Your task to perform on an android device: toggle location history Image 0: 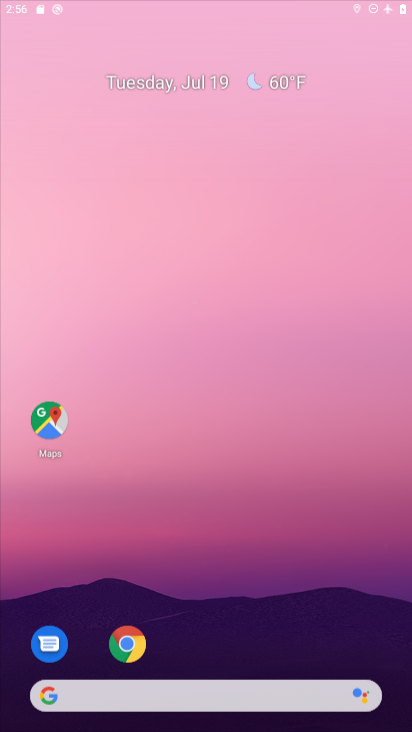
Step 0: drag from (198, 679) to (232, 109)
Your task to perform on an android device: toggle location history Image 1: 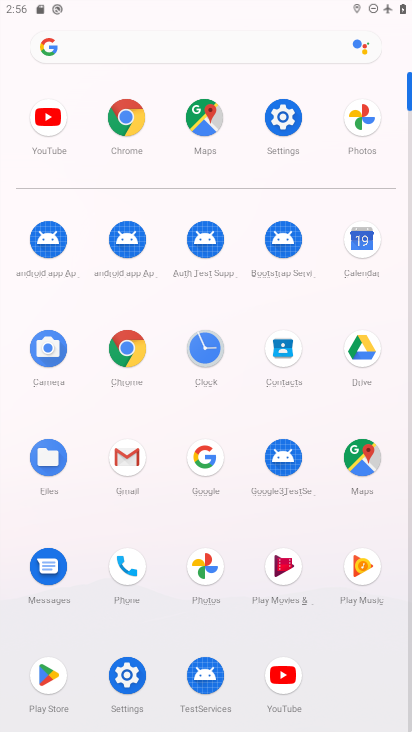
Step 1: click (108, 672)
Your task to perform on an android device: toggle location history Image 2: 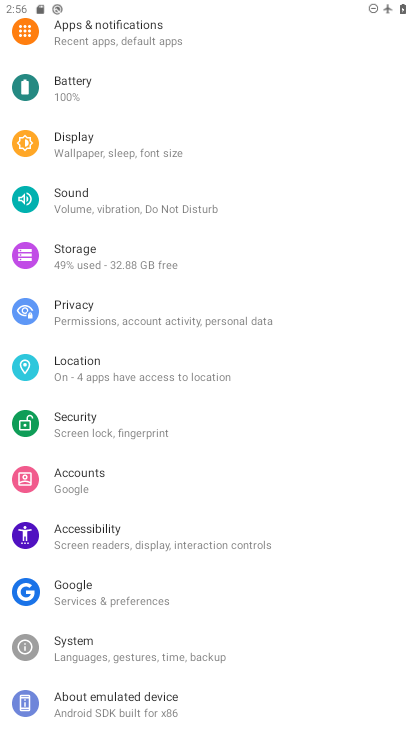
Step 2: click (90, 366)
Your task to perform on an android device: toggle location history Image 3: 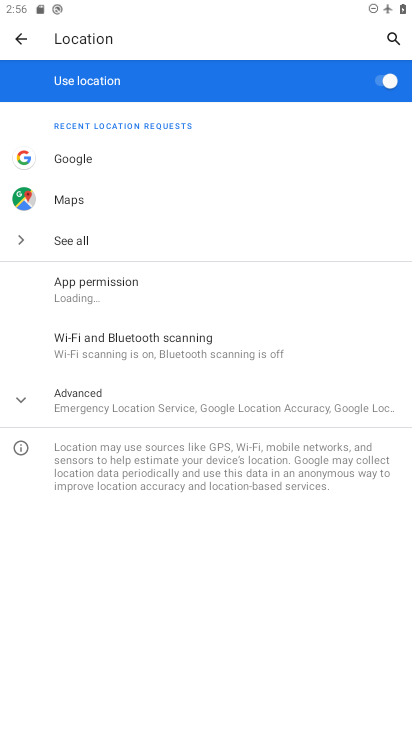
Step 3: click (105, 381)
Your task to perform on an android device: toggle location history Image 4: 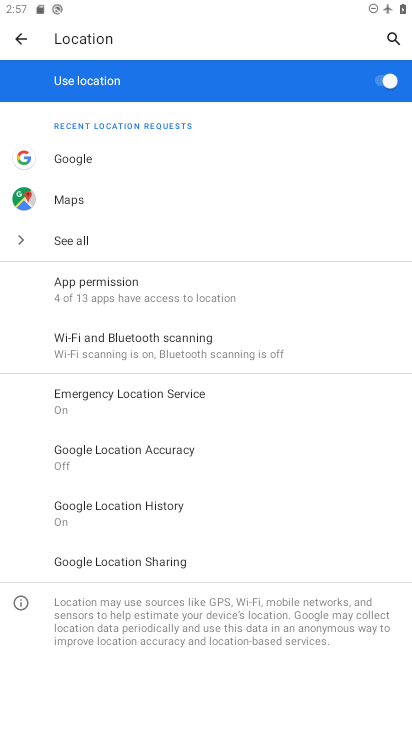
Step 4: click (165, 501)
Your task to perform on an android device: toggle location history Image 5: 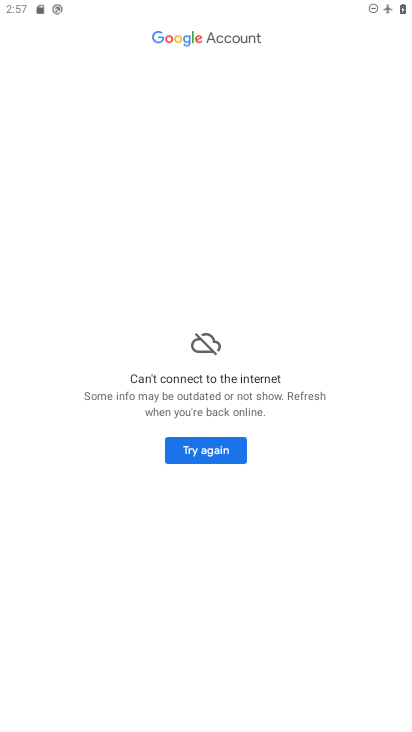
Step 5: click (174, 462)
Your task to perform on an android device: toggle location history Image 6: 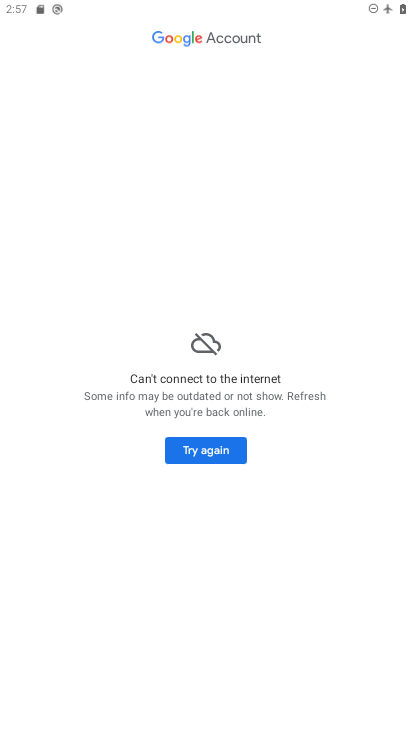
Step 6: task complete